Your task to perform on an android device: Open display settings Image 0: 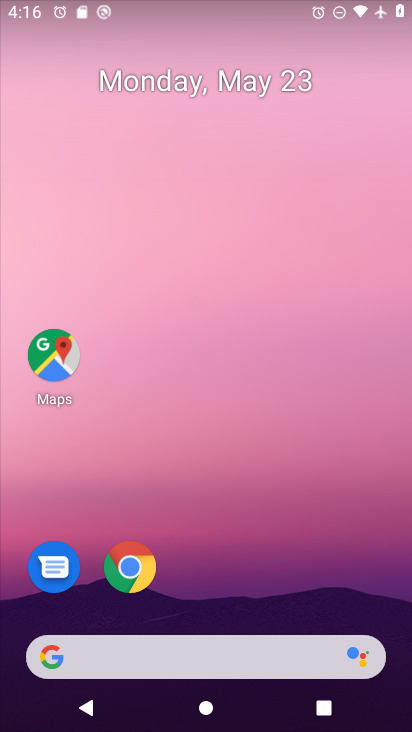
Step 0: drag from (391, 623) to (333, 98)
Your task to perform on an android device: Open display settings Image 1: 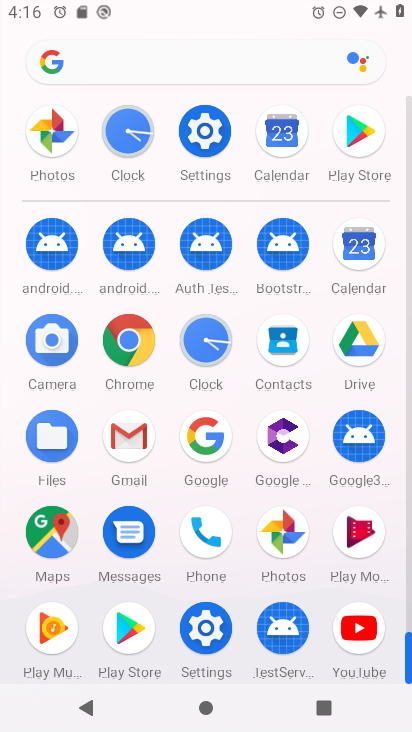
Step 1: click (208, 629)
Your task to perform on an android device: Open display settings Image 2: 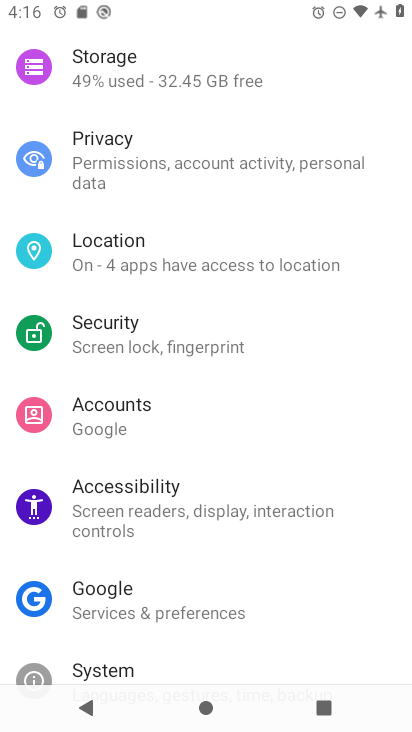
Step 2: drag from (396, 83) to (299, 451)
Your task to perform on an android device: Open display settings Image 3: 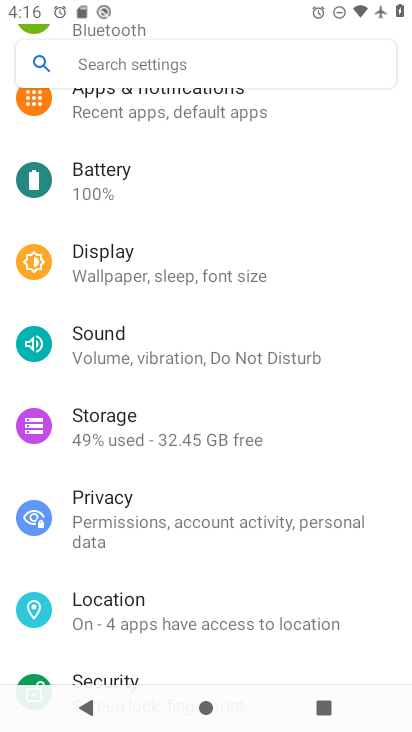
Step 3: click (101, 255)
Your task to perform on an android device: Open display settings Image 4: 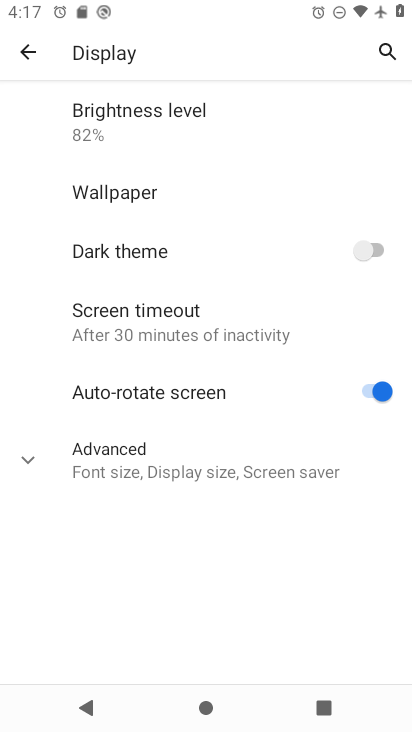
Step 4: click (39, 463)
Your task to perform on an android device: Open display settings Image 5: 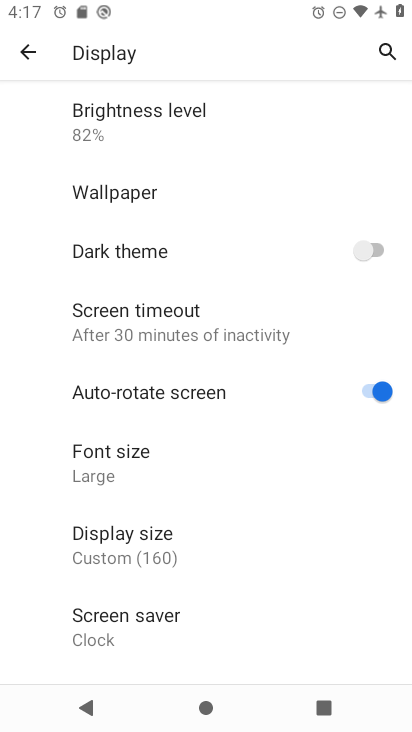
Step 5: task complete